Your task to perform on an android device: Open CNN.com Image 0: 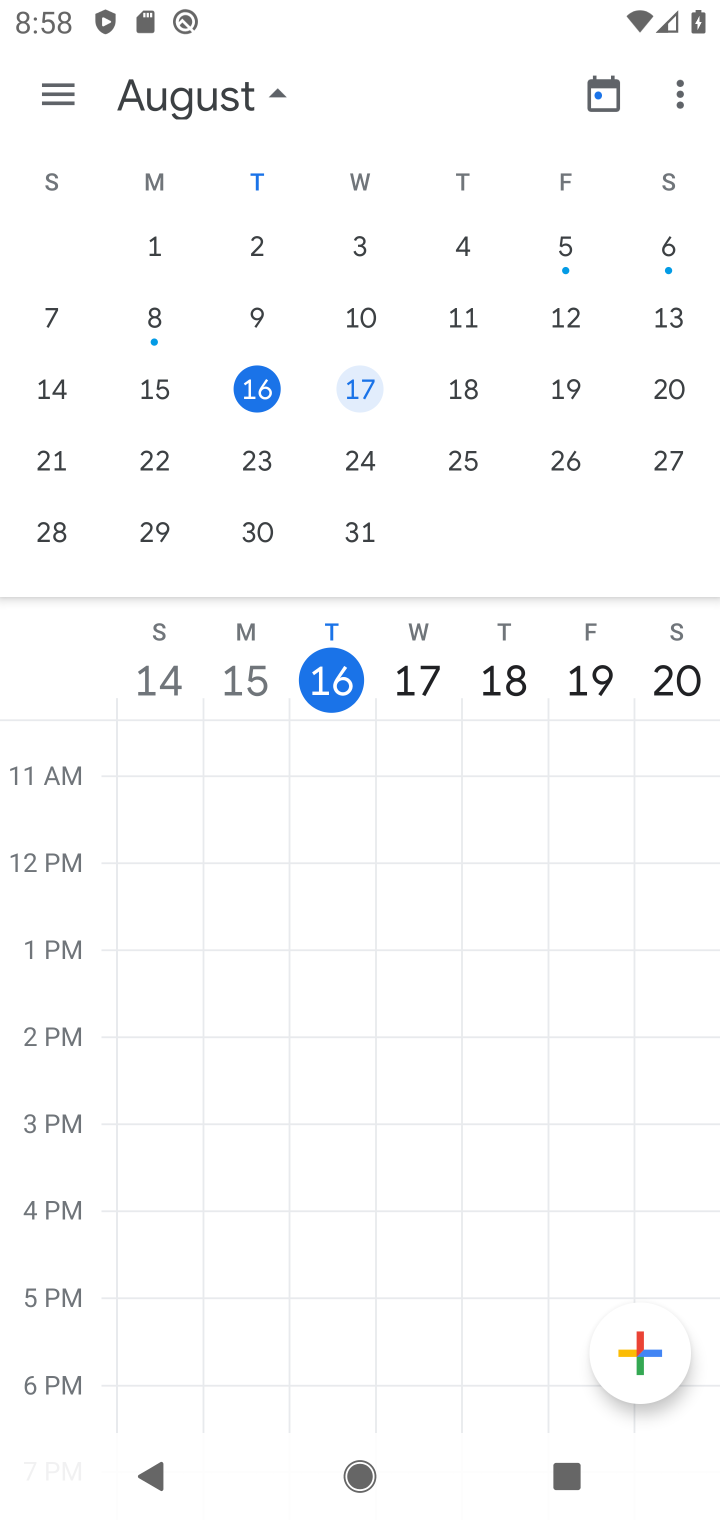
Step 0: press home button
Your task to perform on an android device: Open CNN.com Image 1: 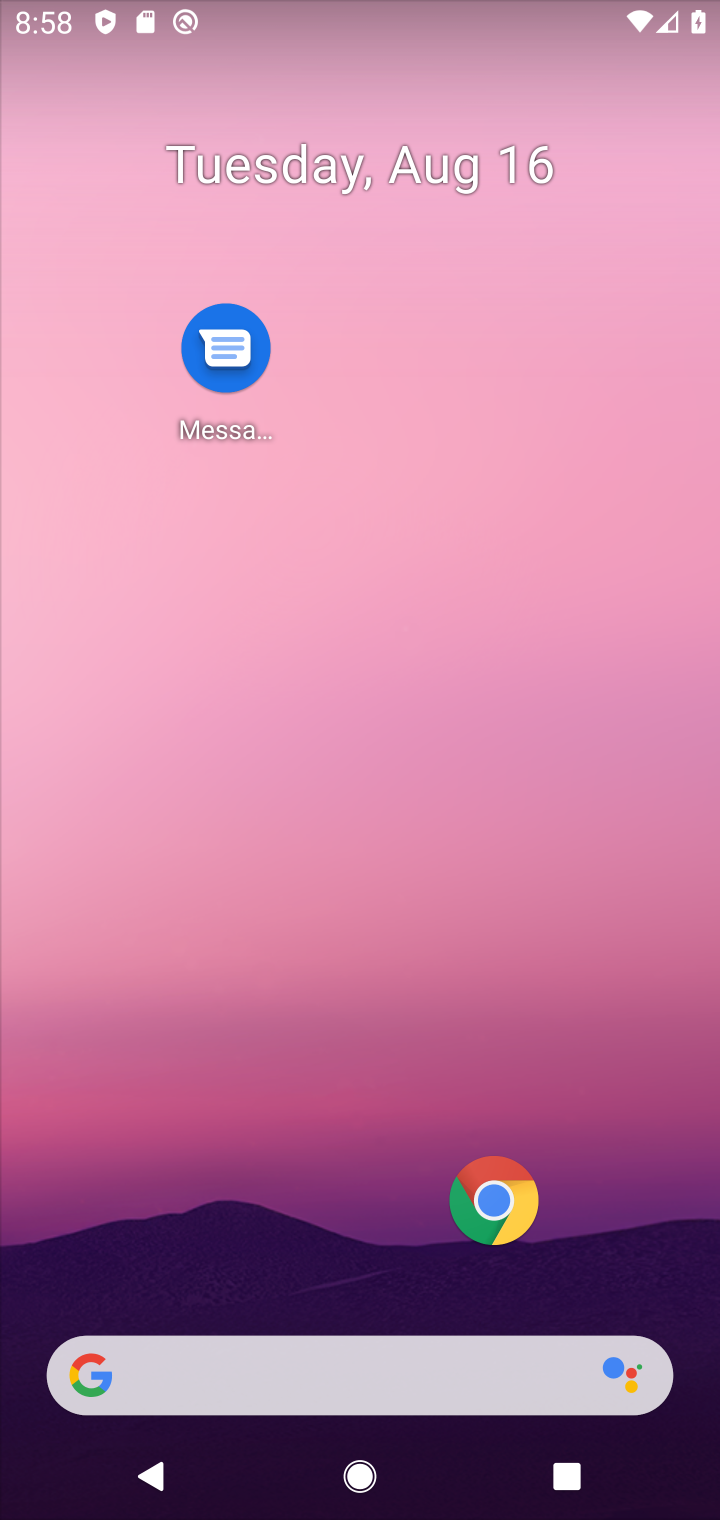
Step 1: click (493, 1207)
Your task to perform on an android device: Open CNN.com Image 2: 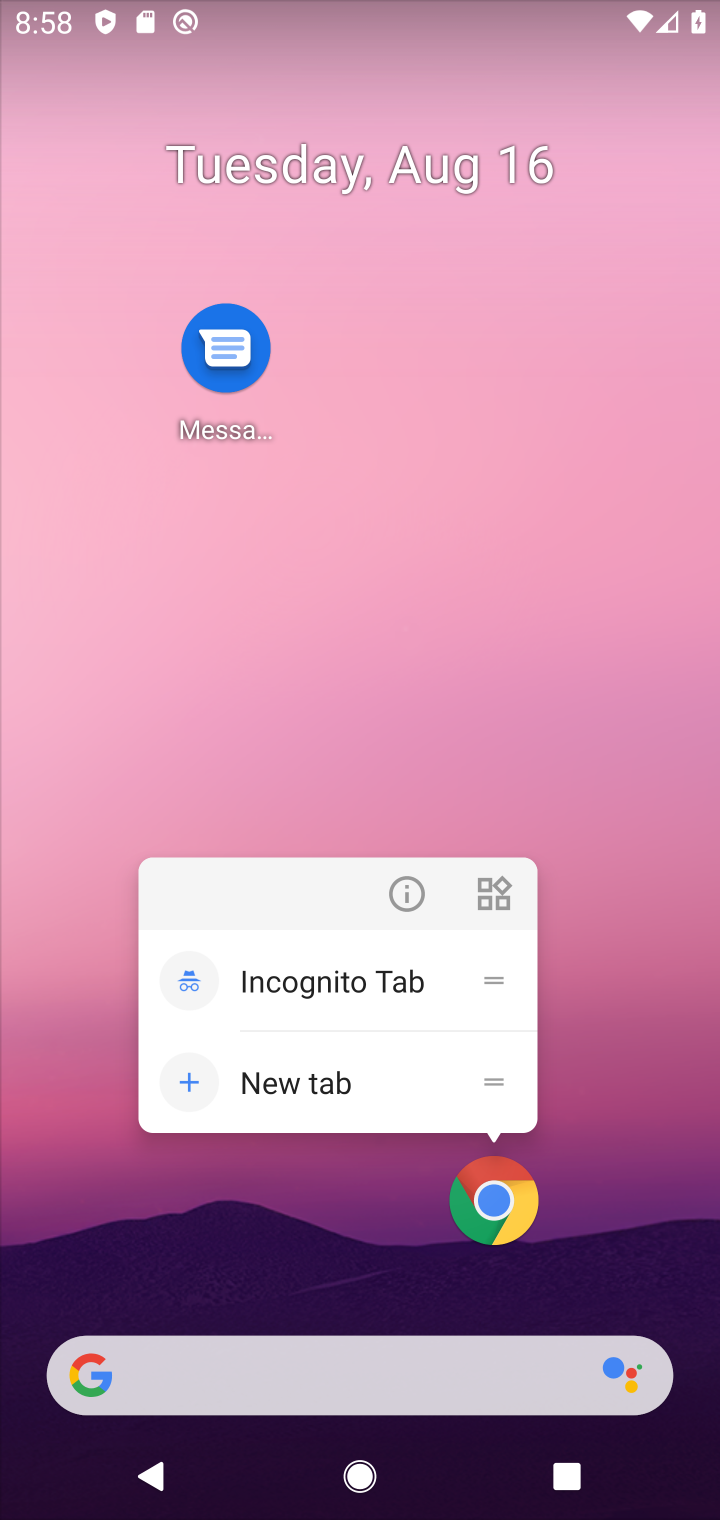
Step 2: click (472, 1205)
Your task to perform on an android device: Open CNN.com Image 3: 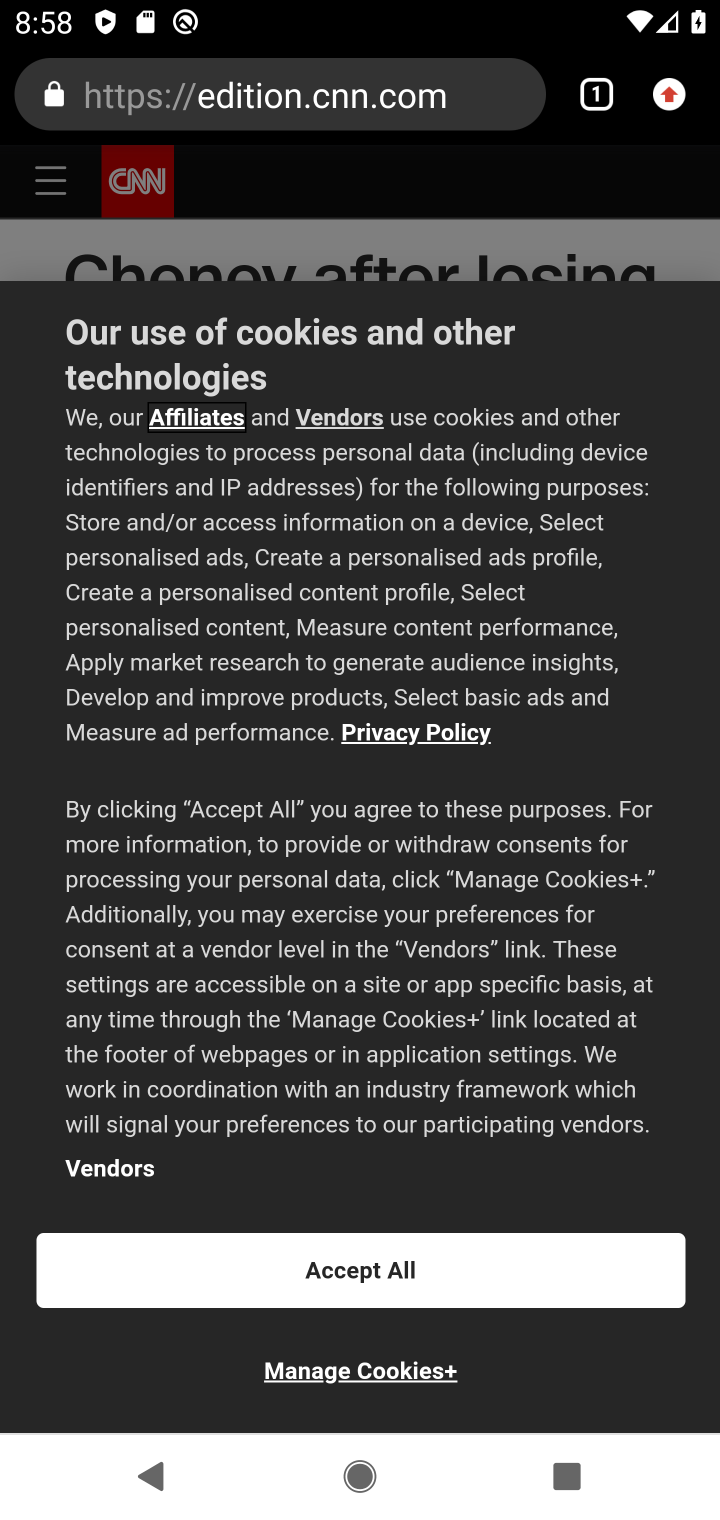
Step 3: task complete